Your task to perform on an android device: Open Maps and search for coffee Image 0: 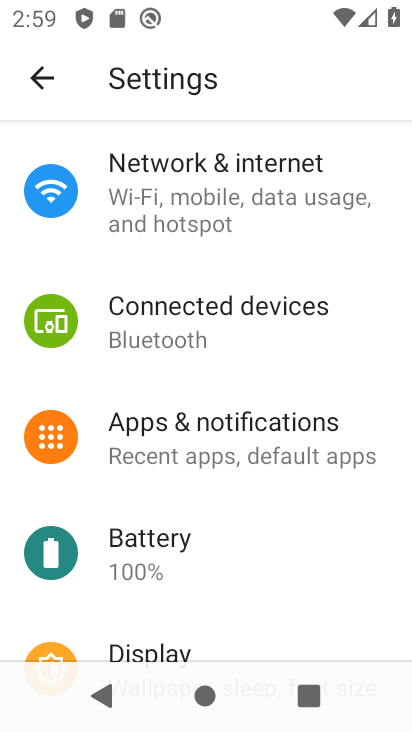
Step 0: drag from (271, 568) to (263, 356)
Your task to perform on an android device: Open Maps and search for coffee Image 1: 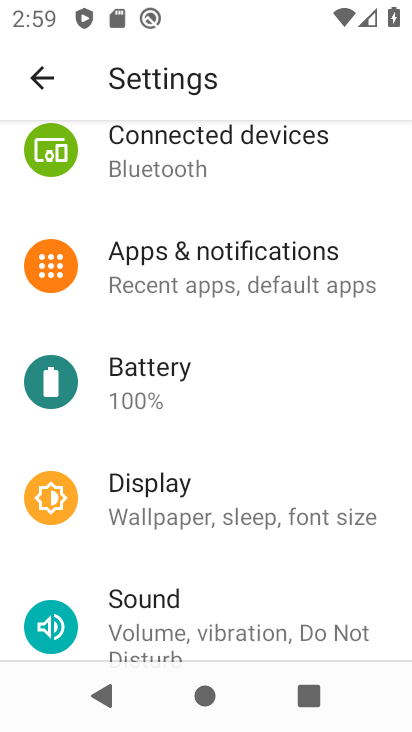
Step 1: press home button
Your task to perform on an android device: Open Maps and search for coffee Image 2: 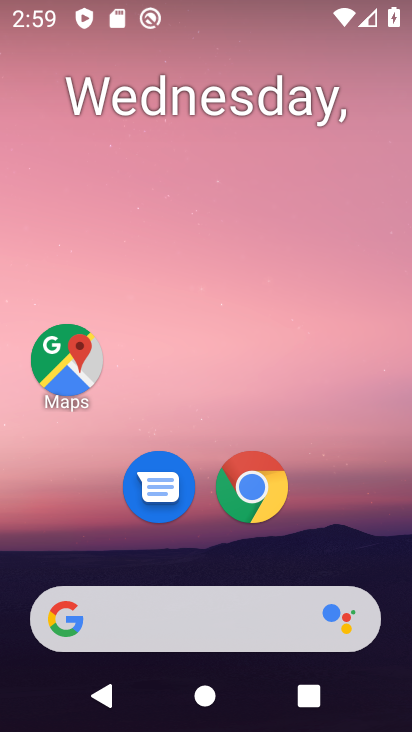
Step 2: drag from (314, 578) to (321, 210)
Your task to perform on an android device: Open Maps and search for coffee Image 3: 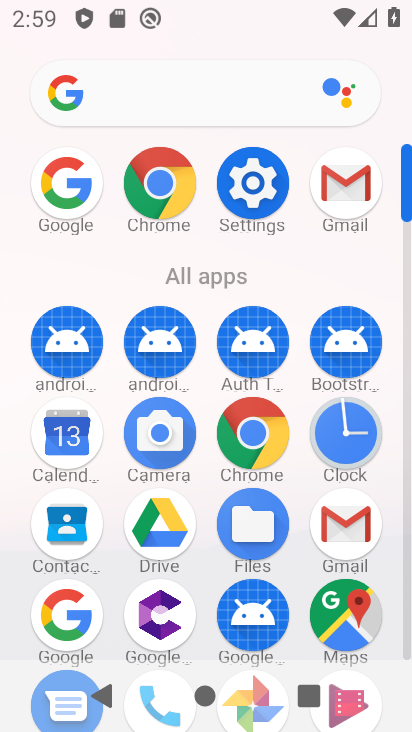
Step 3: click (342, 601)
Your task to perform on an android device: Open Maps and search for coffee Image 4: 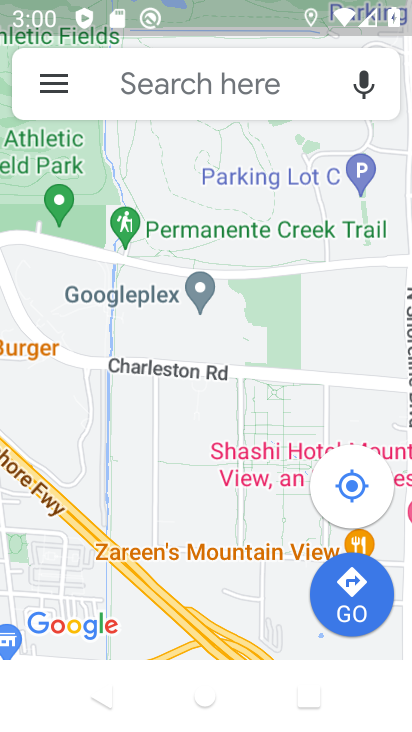
Step 4: click (174, 79)
Your task to perform on an android device: Open Maps and search for coffee Image 5: 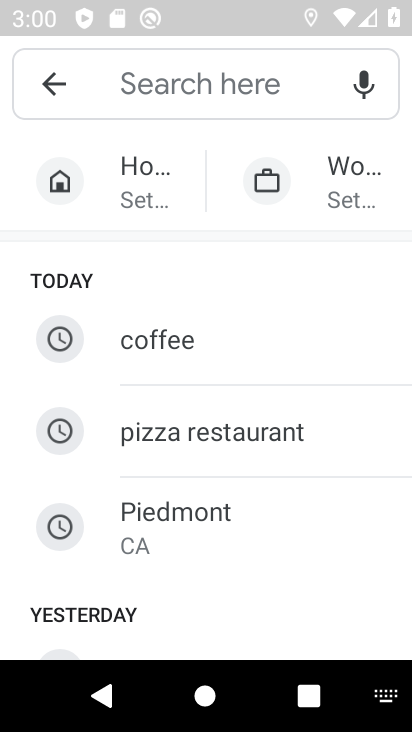
Step 5: type "coffee"
Your task to perform on an android device: Open Maps and search for coffee Image 6: 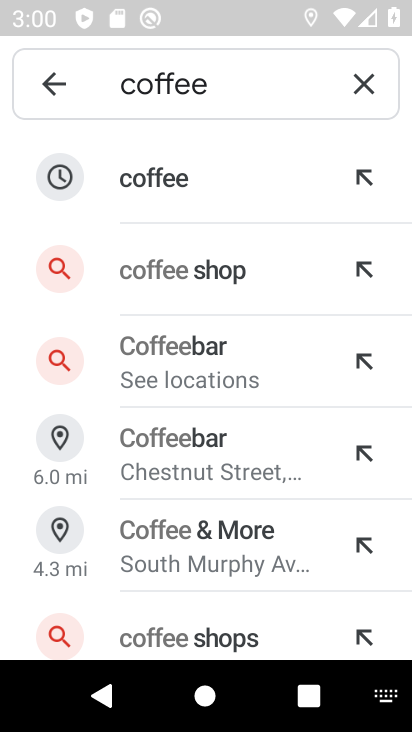
Step 6: click (264, 184)
Your task to perform on an android device: Open Maps and search for coffee Image 7: 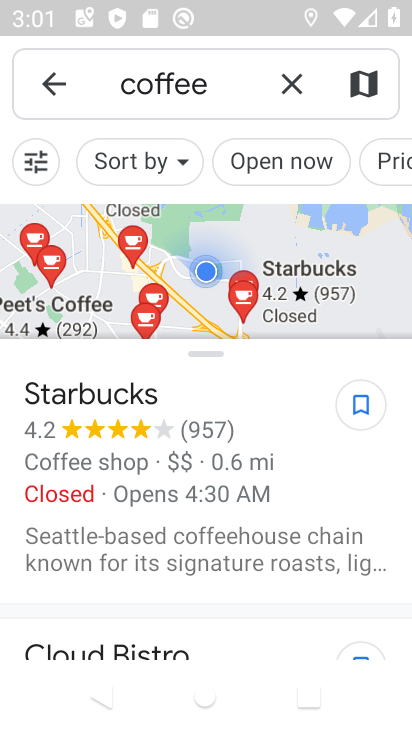
Step 7: task complete